Your task to perform on an android device: change the clock display to analog Image 0: 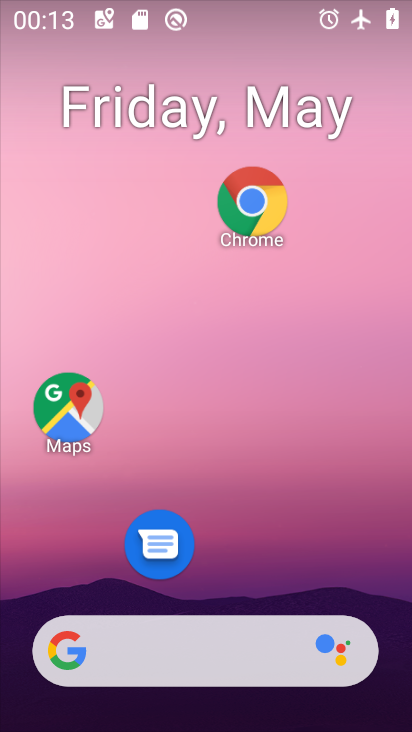
Step 0: drag from (235, 594) to (280, 95)
Your task to perform on an android device: change the clock display to analog Image 1: 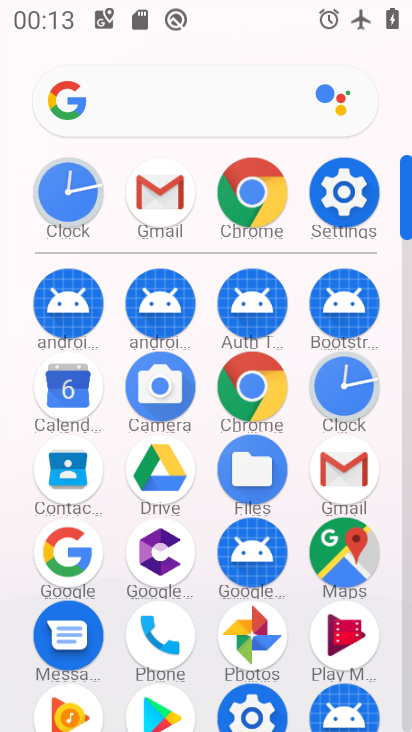
Step 1: click (341, 377)
Your task to perform on an android device: change the clock display to analog Image 2: 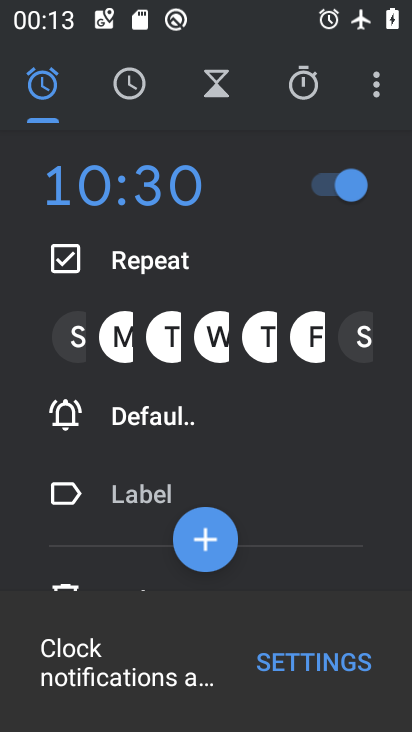
Step 2: click (372, 79)
Your task to perform on an android device: change the clock display to analog Image 3: 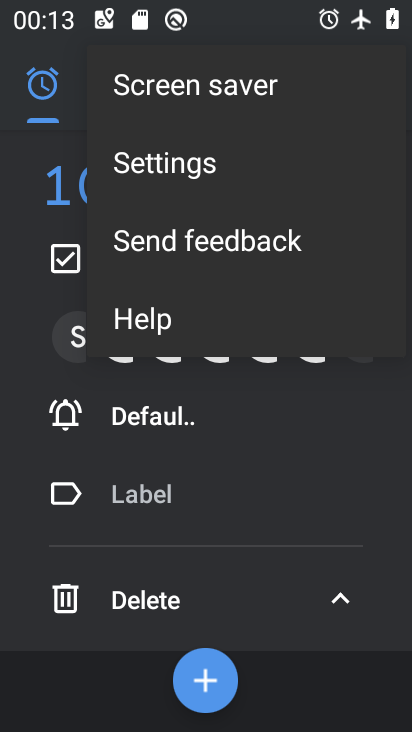
Step 3: click (239, 165)
Your task to perform on an android device: change the clock display to analog Image 4: 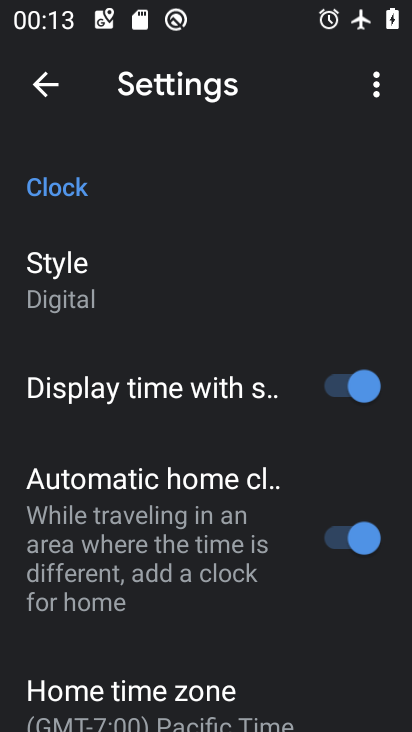
Step 4: click (111, 270)
Your task to perform on an android device: change the clock display to analog Image 5: 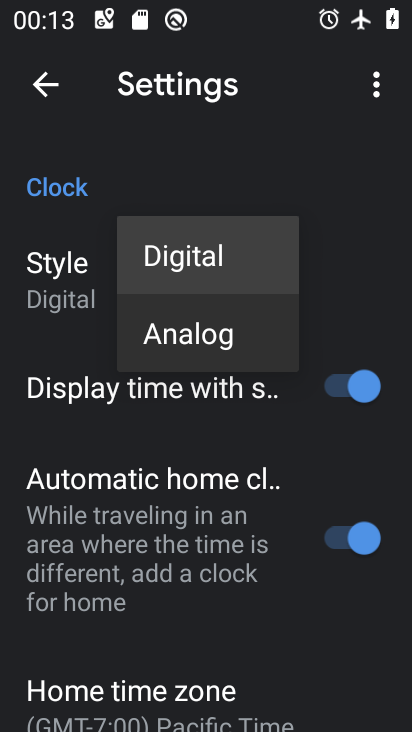
Step 5: click (241, 329)
Your task to perform on an android device: change the clock display to analog Image 6: 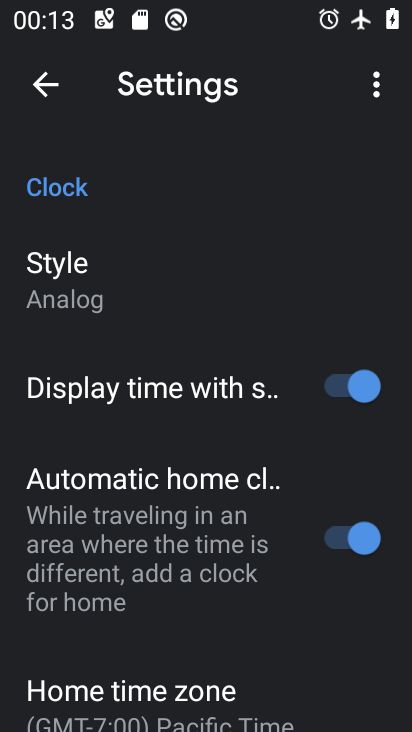
Step 6: task complete